Your task to perform on an android device: change the clock display to digital Image 0: 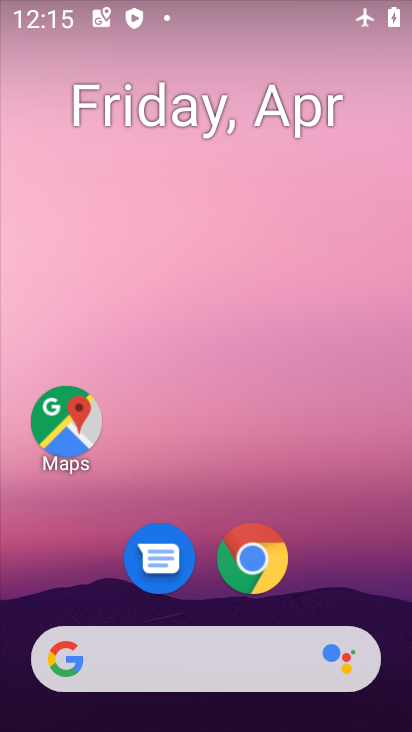
Step 0: drag from (393, 609) to (273, 94)
Your task to perform on an android device: change the clock display to digital Image 1: 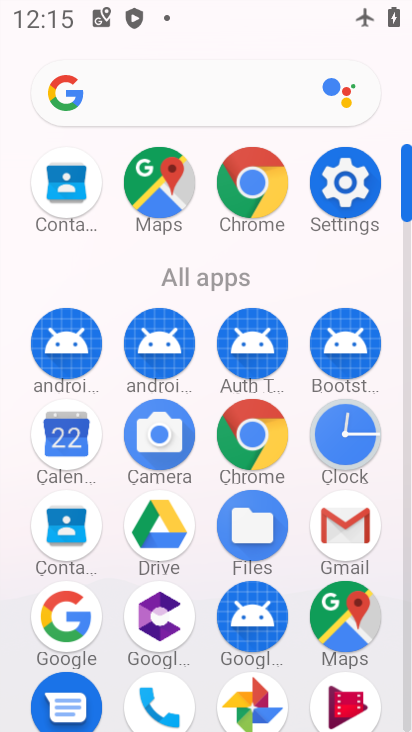
Step 1: click (348, 452)
Your task to perform on an android device: change the clock display to digital Image 2: 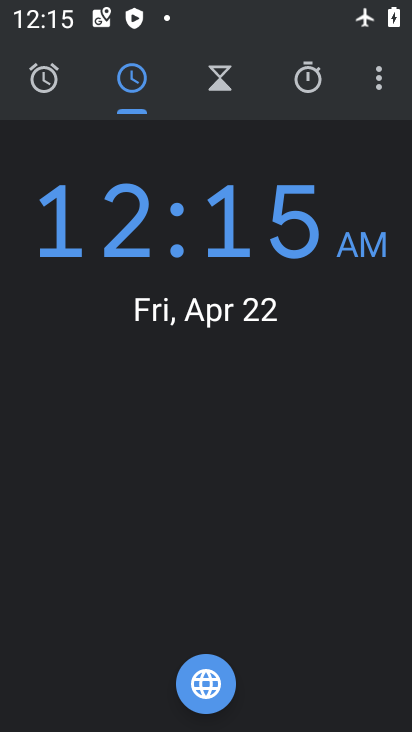
Step 2: click (375, 74)
Your task to perform on an android device: change the clock display to digital Image 3: 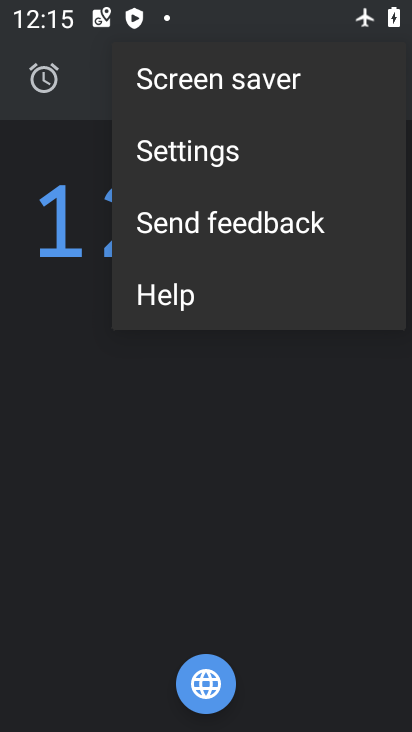
Step 3: click (330, 142)
Your task to perform on an android device: change the clock display to digital Image 4: 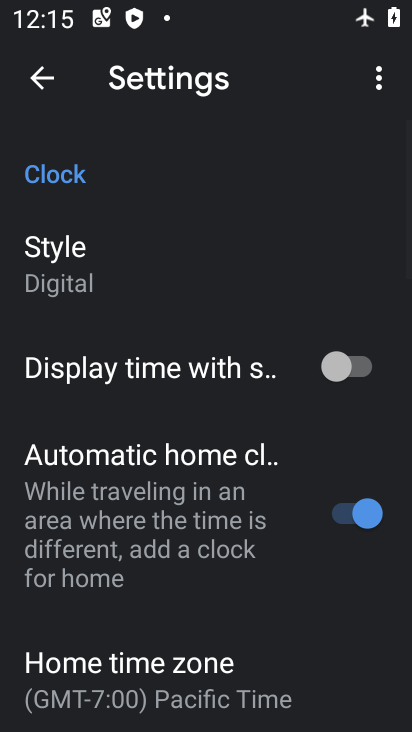
Step 4: click (240, 265)
Your task to perform on an android device: change the clock display to digital Image 5: 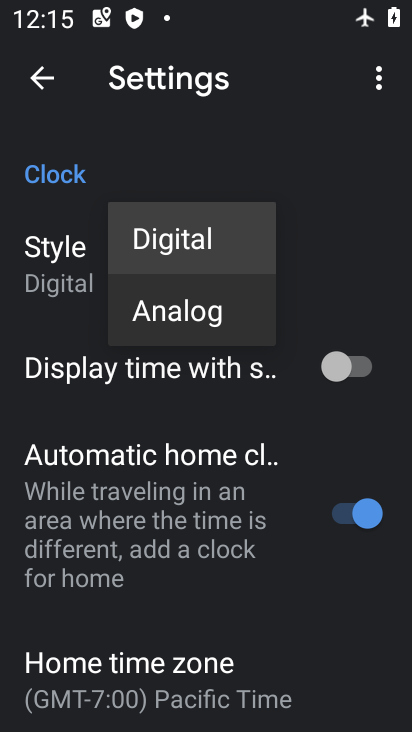
Step 5: click (230, 254)
Your task to perform on an android device: change the clock display to digital Image 6: 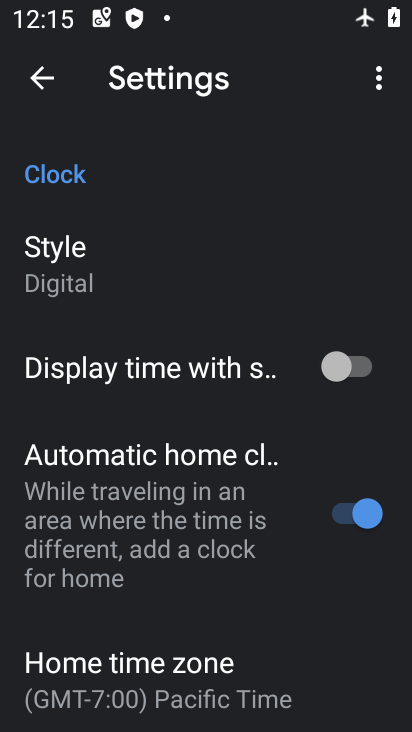
Step 6: task complete